Your task to perform on an android device: turn on wifi Image 0: 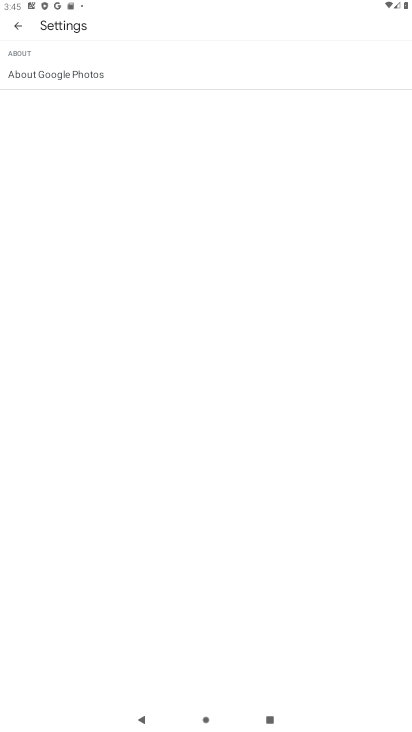
Step 0: press home button
Your task to perform on an android device: turn on wifi Image 1: 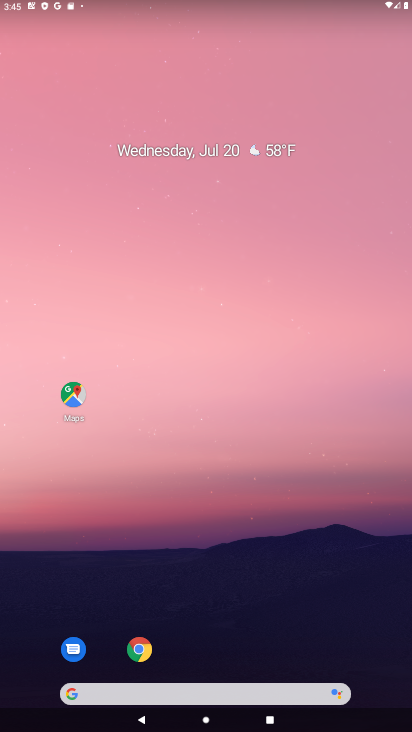
Step 1: drag from (237, 727) to (210, 156)
Your task to perform on an android device: turn on wifi Image 2: 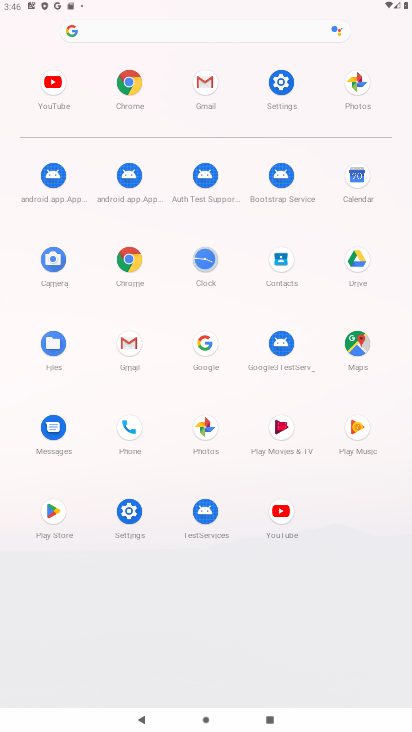
Step 2: click (287, 81)
Your task to perform on an android device: turn on wifi Image 3: 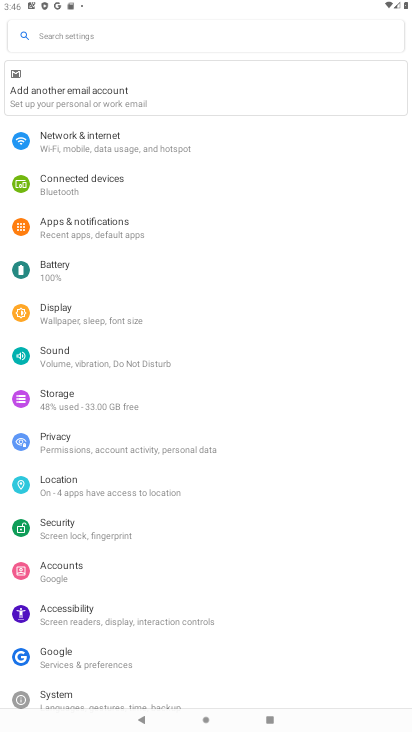
Step 3: click (86, 139)
Your task to perform on an android device: turn on wifi Image 4: 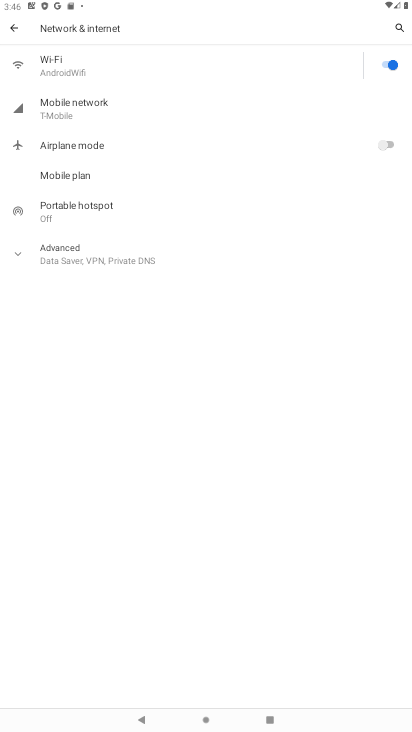
Step 4: task complete